Your task to perform on an android device: change your default location settings in chrome Image 0: 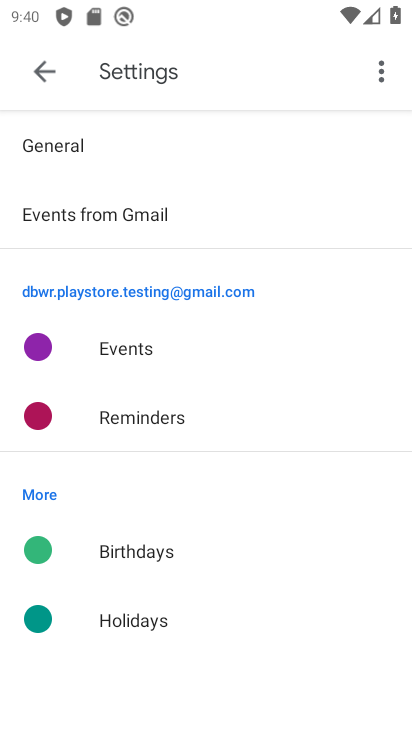
Step 0: press home button
Your task to perform on an android device: change your default location settings in chrome Image 1: 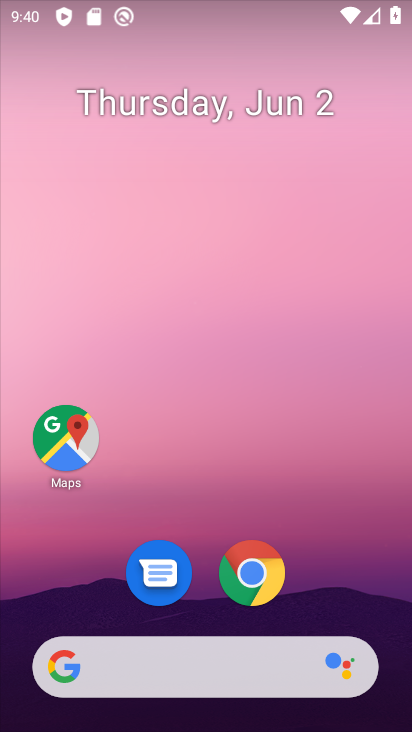
Step 1: click (268, 582)
Your task to perform on an android device: change your default location settings in chrome Image 2: 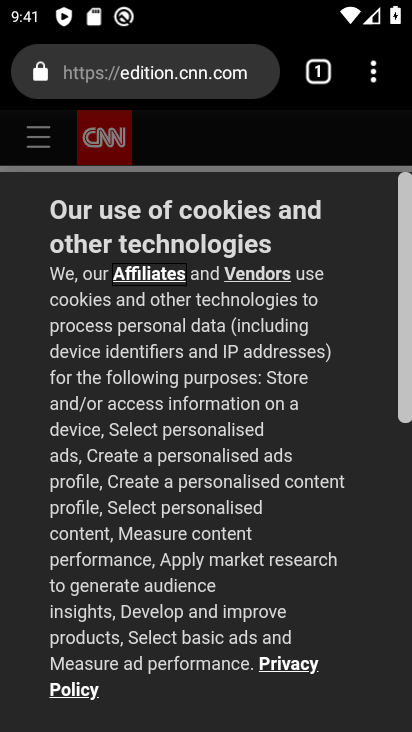
Step 2: click (379, 60)
Your task to perform on an android device: change your default location settings in chrome Image 3: 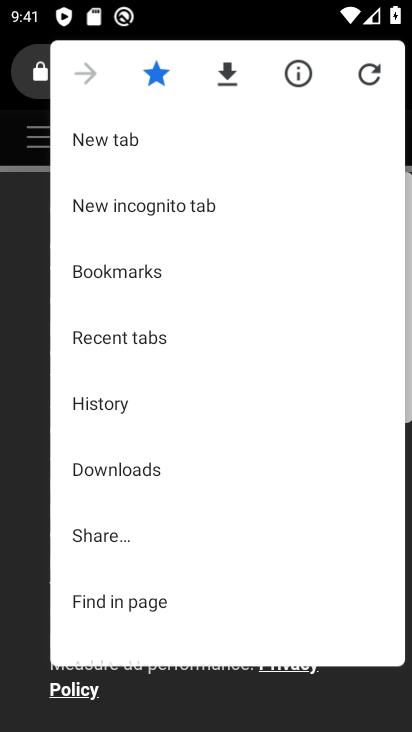
Step 3: drag from (190, 508) to (172, 145)
Your task to perform on an android device: change your default location settings in chrome Image 4: 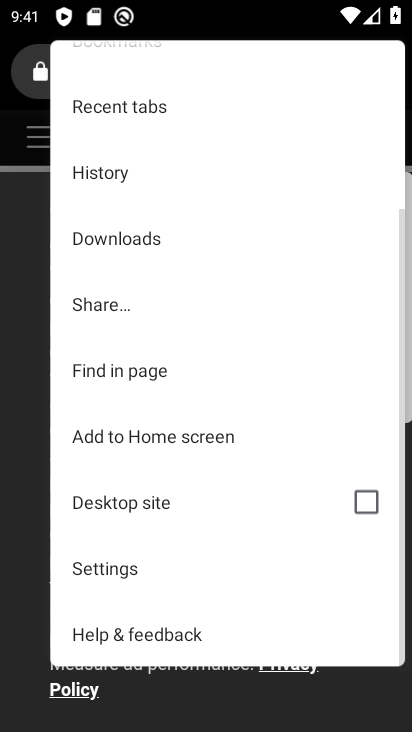
Step 4: click (132, 566)
Your task to perform on an android device: change your default location settings in chrome Image 5: 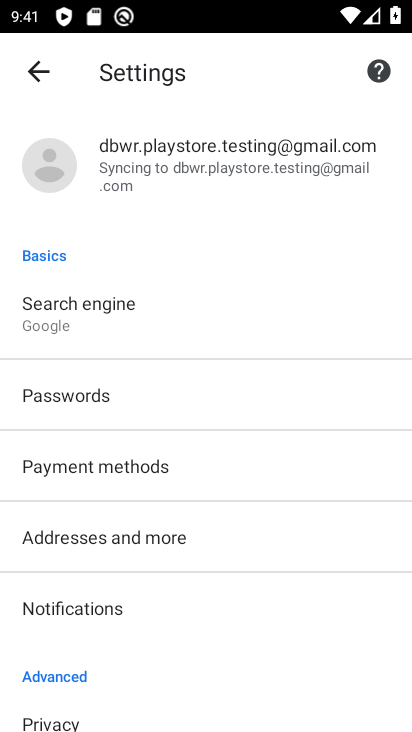
Step 5: drag from (174, 612) to (167, 300)
Your task to perform on an android device: change your default location settings in chrome Image 6: 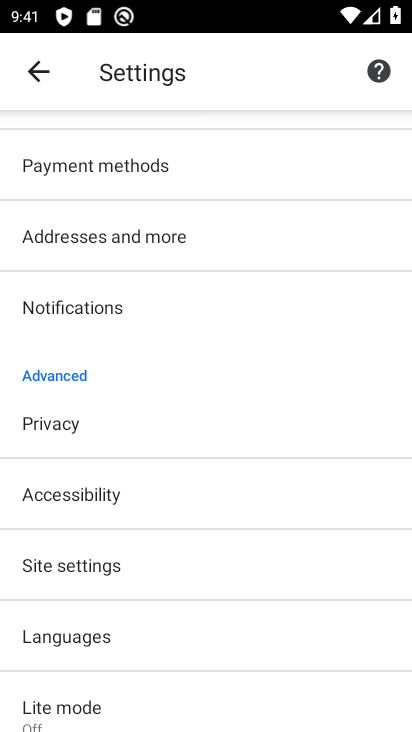
Step 6: click (82, 566)
Your task to perform on an android device: change your default location settings in chrome Image 7: 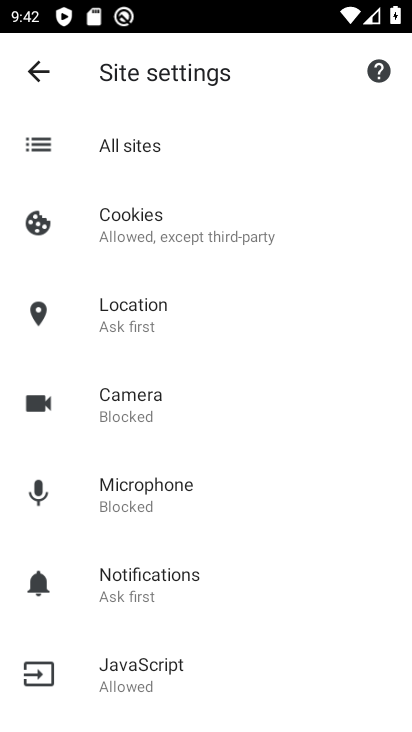
Step 7: click (136, 318)
Your task to perform on an android device: change your default location settings in chrome Image 8: 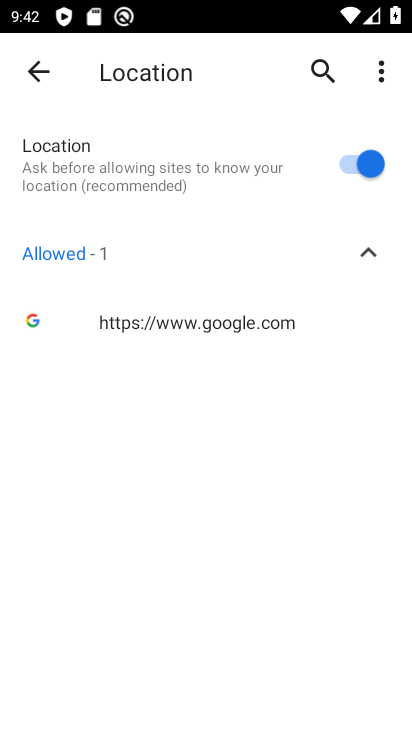
Step 8: click (345, 177)
Your task to perform on an android device: change your default location settings in chrome Image 9: 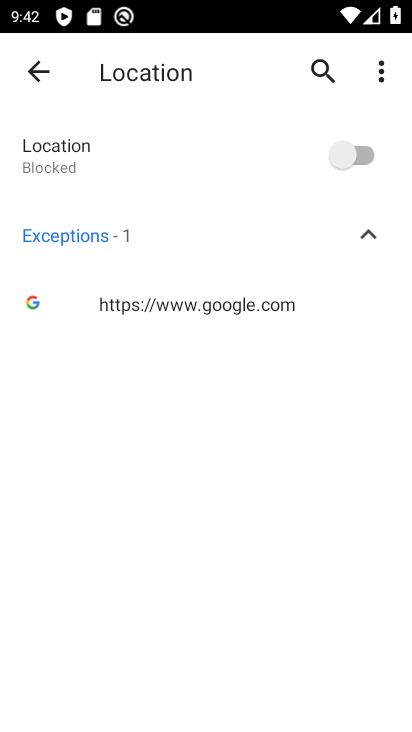
Step 9: task complete